Your task to perform on an android device: What is the recent news? Image 0: 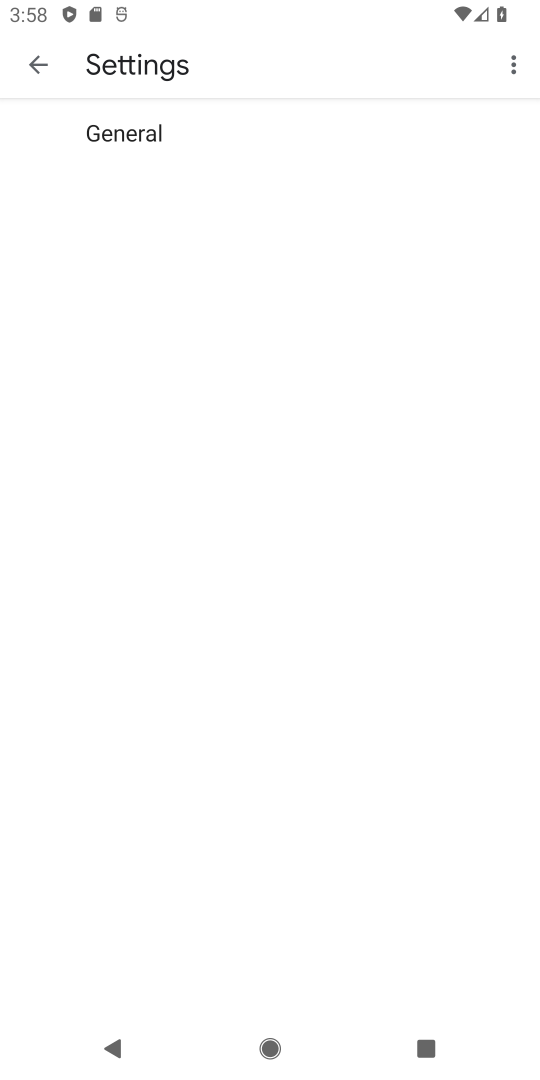
Step 0: press home button
Your task to perform on an android device: What is the recent news? Image 1: 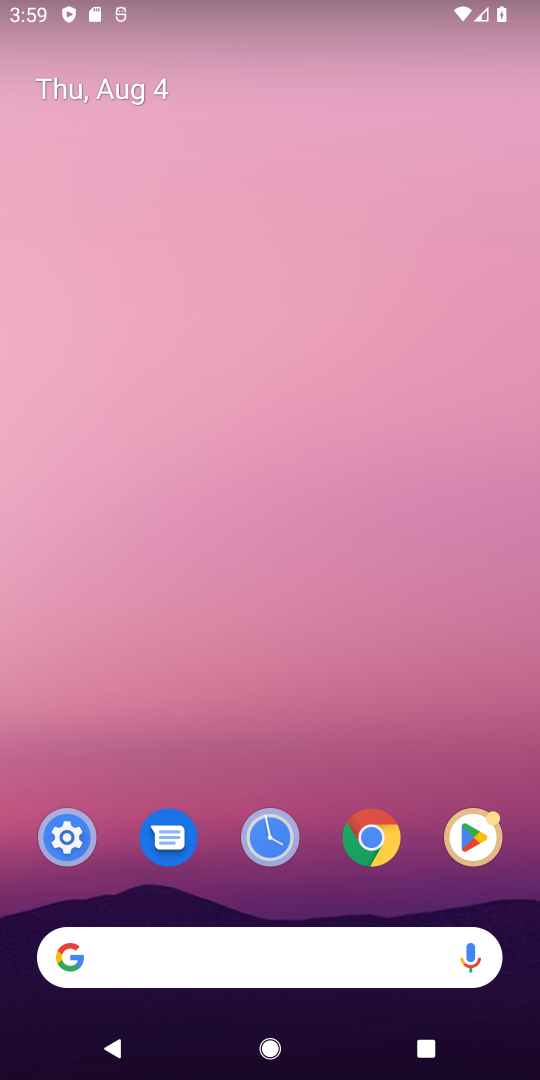
Step 1: task complete